Your task to perform on an android device: delete a single message in the gmail app Image 0: 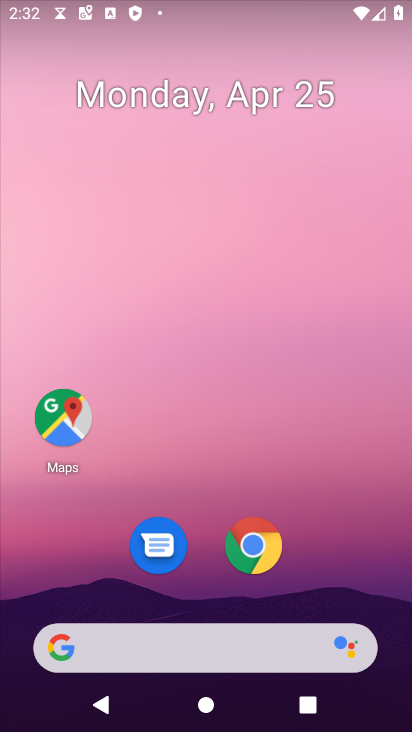
Step 0: drag from (250, 589) to (223, 51)
Your task to perform on an android device: delete a single message in the gmail app Image 1: 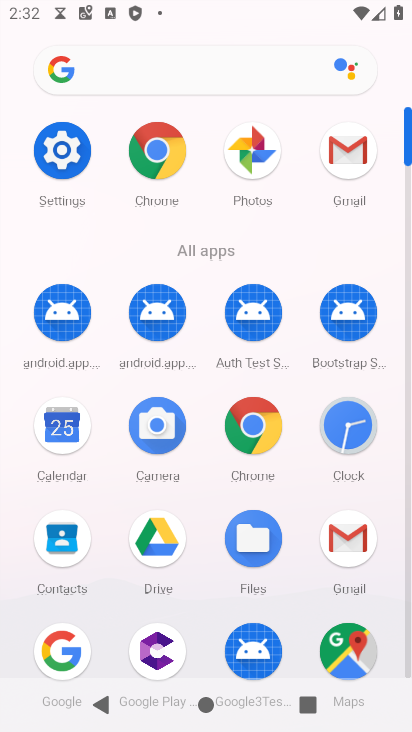
Step 1: click (340, 545)
Your task to perform on an android device: delete a single message in the gmail app Image 2: 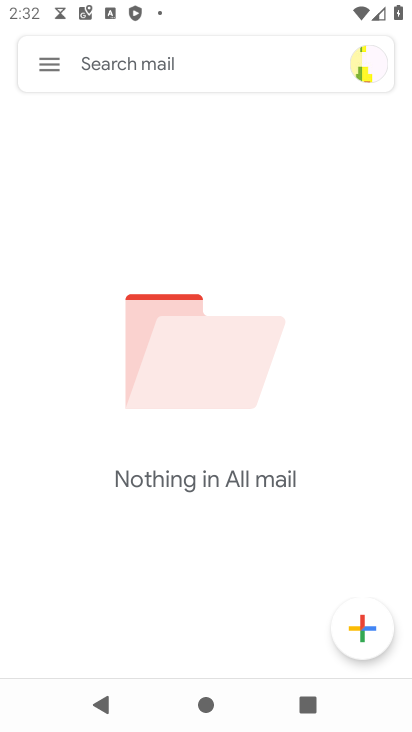
Step 2: click (53, 62)
Your task to perform on an android device: delete a single message in the gmail app Image 3: 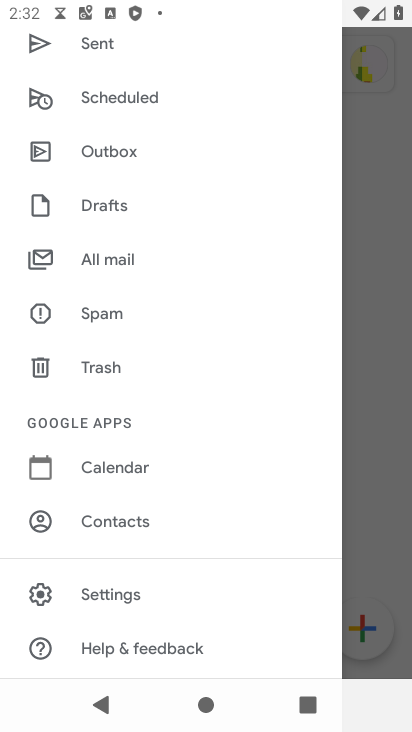
Step 3: click (113, 262)
Your task to perform on an android device: delete a single message in the gmail app Image 4: 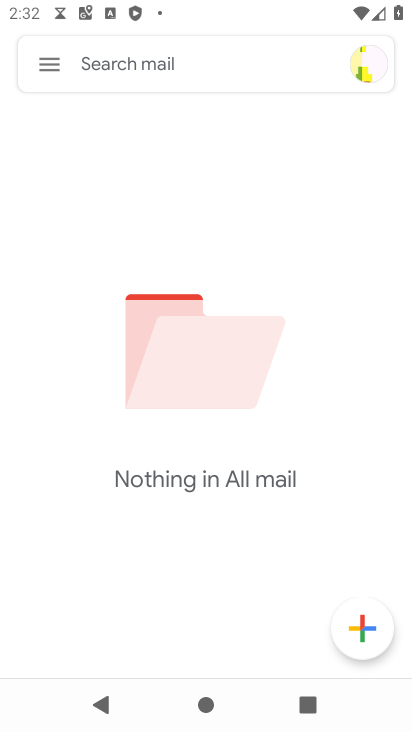
Step 4: task complete